Your task to perform on an android device: Search for Mexican restaurants on Maps Image 0: 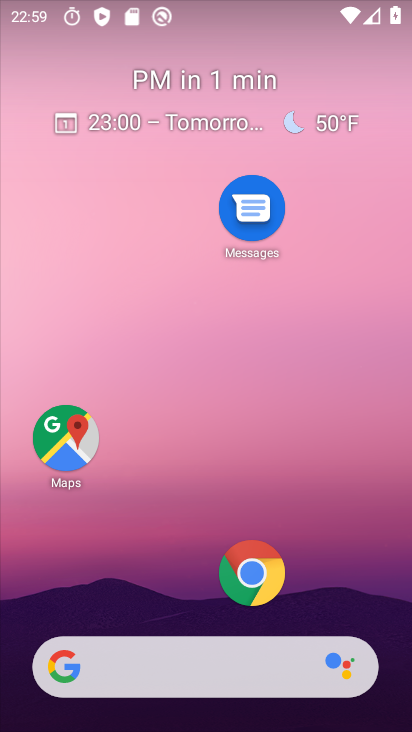
Step 0: click (65, 438)
Your task to perform on an android device: Search for Mexican restaurants on Maps Image 1: 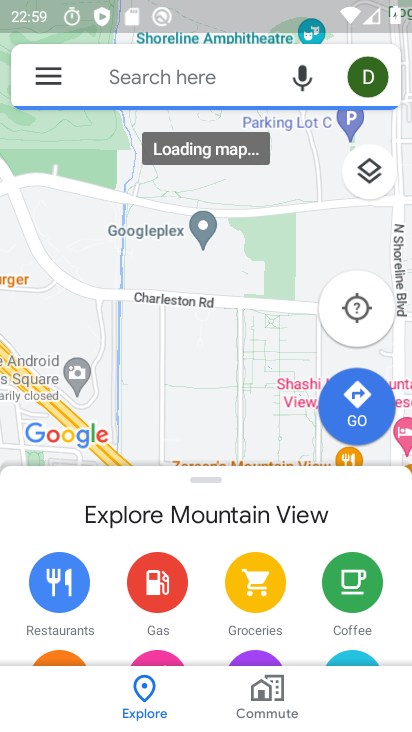
Step 1: click (183, 75)
Your task to perform on an android device: Search for Mexican restaurants on Maps Image 2: 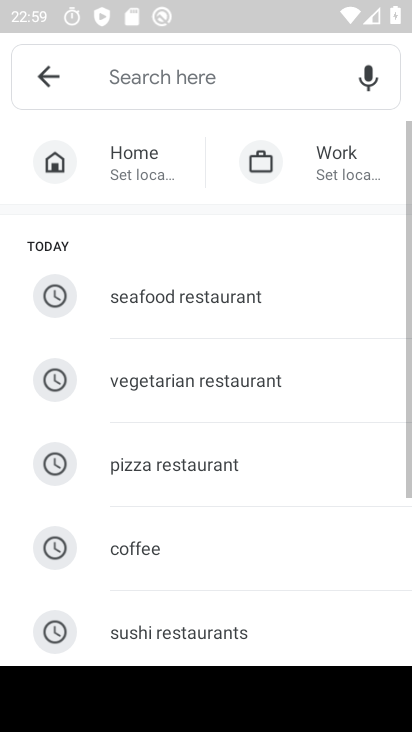
Step 2: drag from (218, 604) to (218, 230)
Your task to perform on an android device: Search for Mexican restaurants on Maps Image 3: 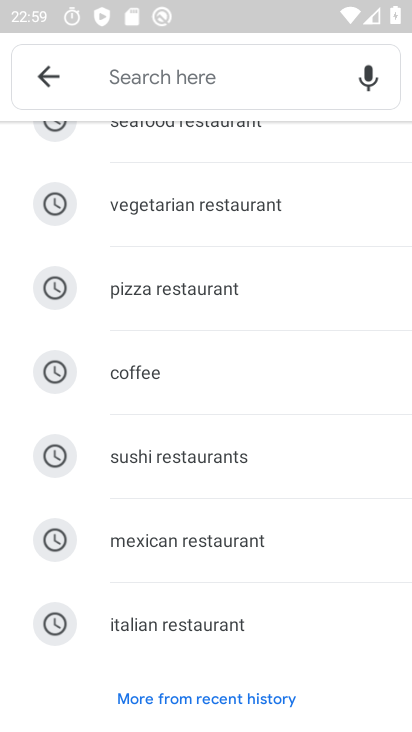
Step 3: click (152, 535)
Your task to perform on an android device: Search for Mexican restaurants on Maps Image 4: 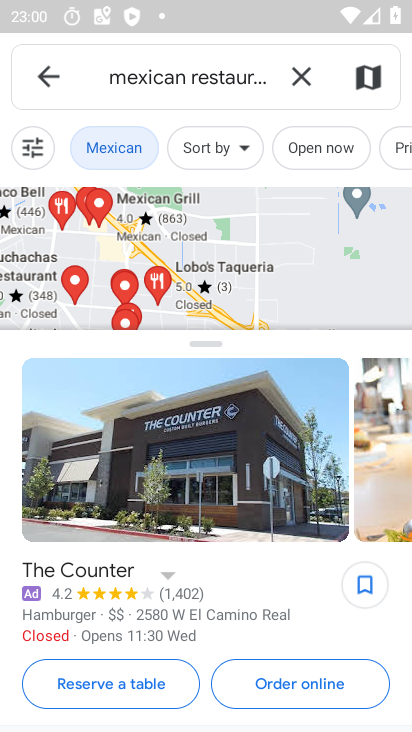
Step 4: task complete